Your task to perform on an android device: toggle data saver in the chrome app Image 0: 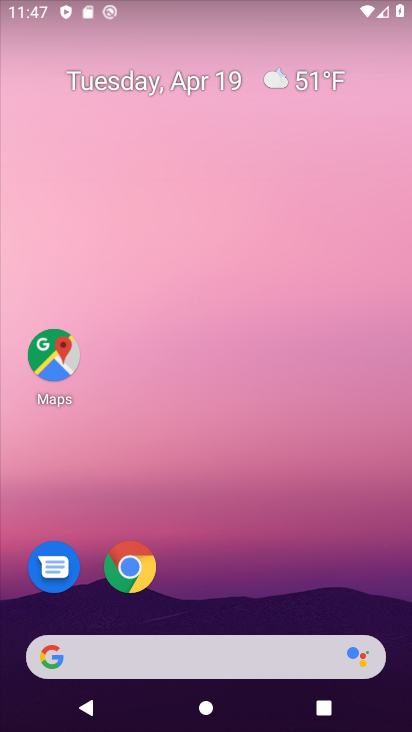
Step 0: click (136, 578)
Your task to perform on an android device: toggle data saver in the chrome app Image 1: 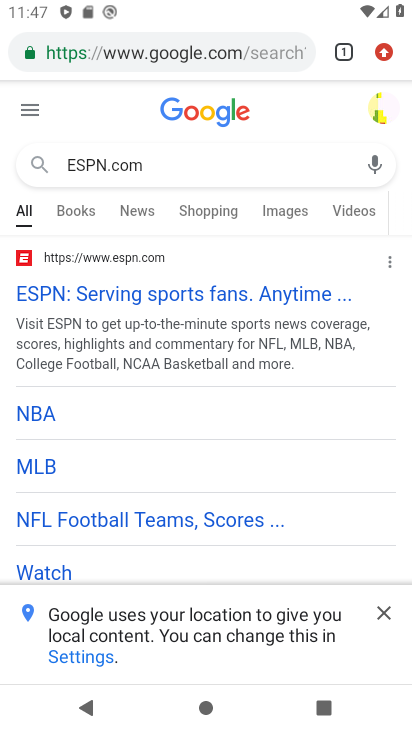
Step 1: click (389, 52)
Your task to perform on an android device: toggle data saver in the chrome app Image 2: 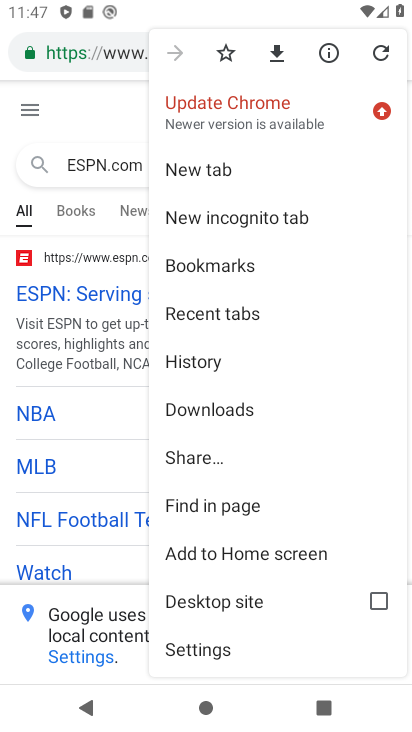
Step 2: drag from (210, 563) to (249, 327)
Your task to perform on an android device: toggle data saver in the chrome app Image 3: 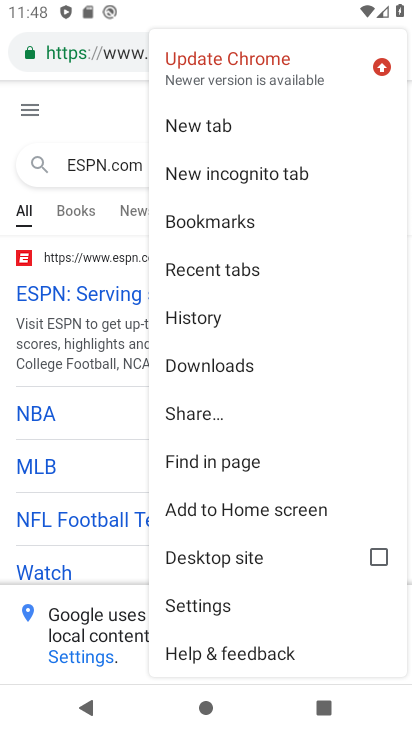
Step 3: click (193, 615)
Your task to perform on an android device: toggle data saver in the chrome app Image 4: 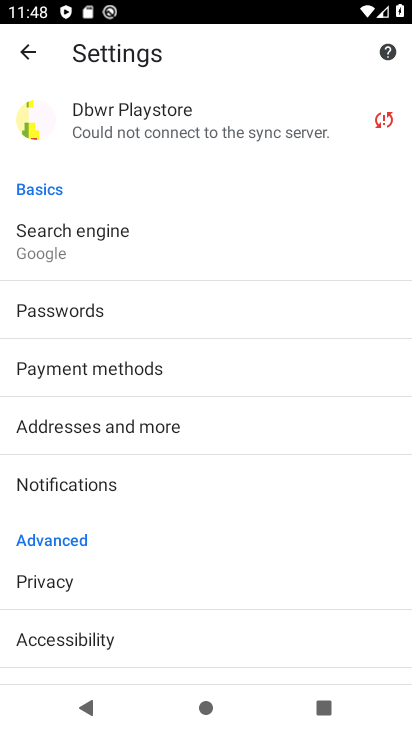
Step 4: drag from (113, 584) to (237, 138)
Your task to perform on an android device: toggle data saver in the chrome app Image 5: 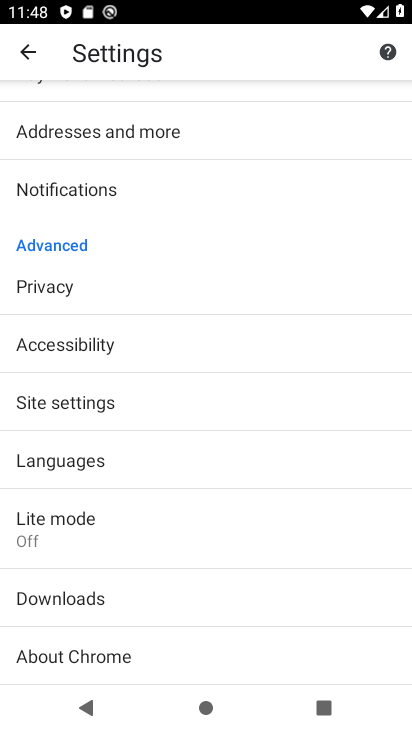
Step 5: click (82, 533)
Your task to perform on an android device: toggle data saver in the chrome app Image 6: 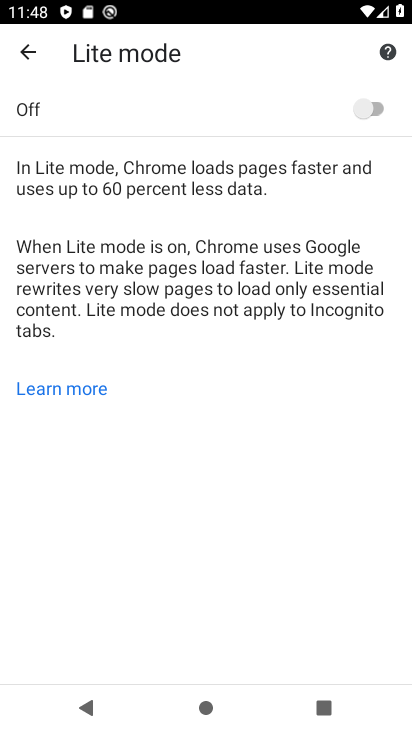
Step 6: click (380, 106)
Your task to perform on an android device: toggle data saver in the chrome app Image 7: 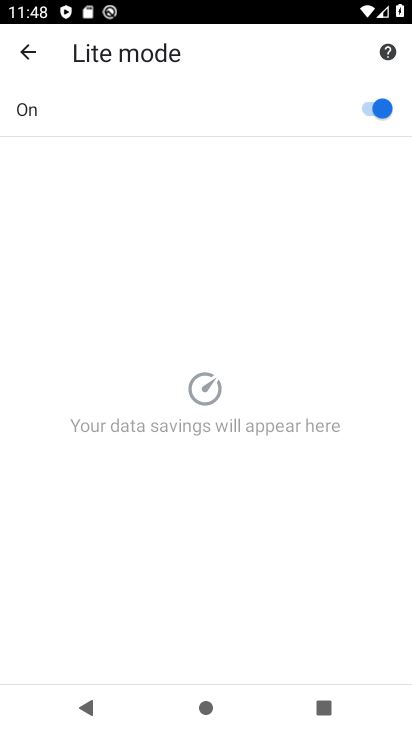
Step 7: task complete